Your task to perform on an android device: Open sound settings Image 0: 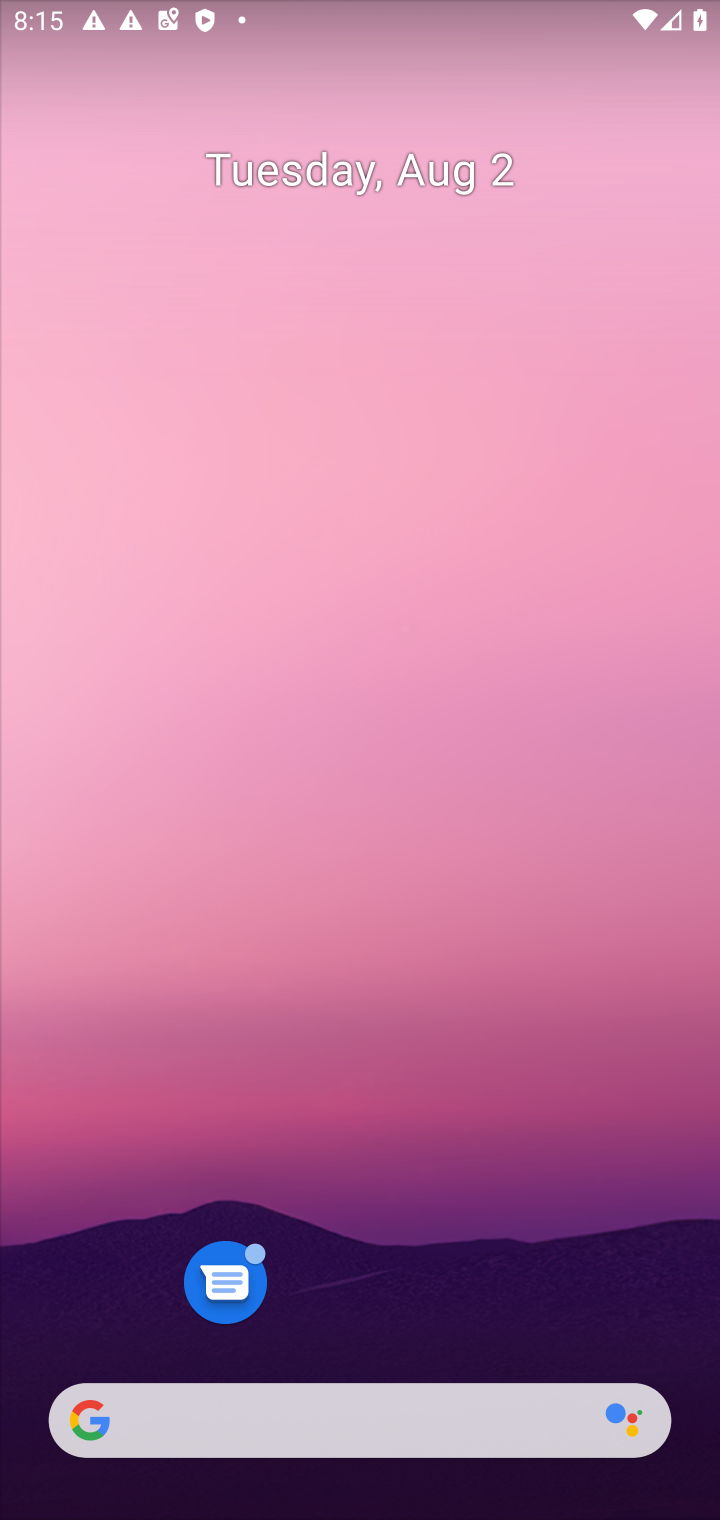
Step 0: drag from (452, 1317) to (693, 878)
Your task to perform on an android device: Open sound settings Image 1: 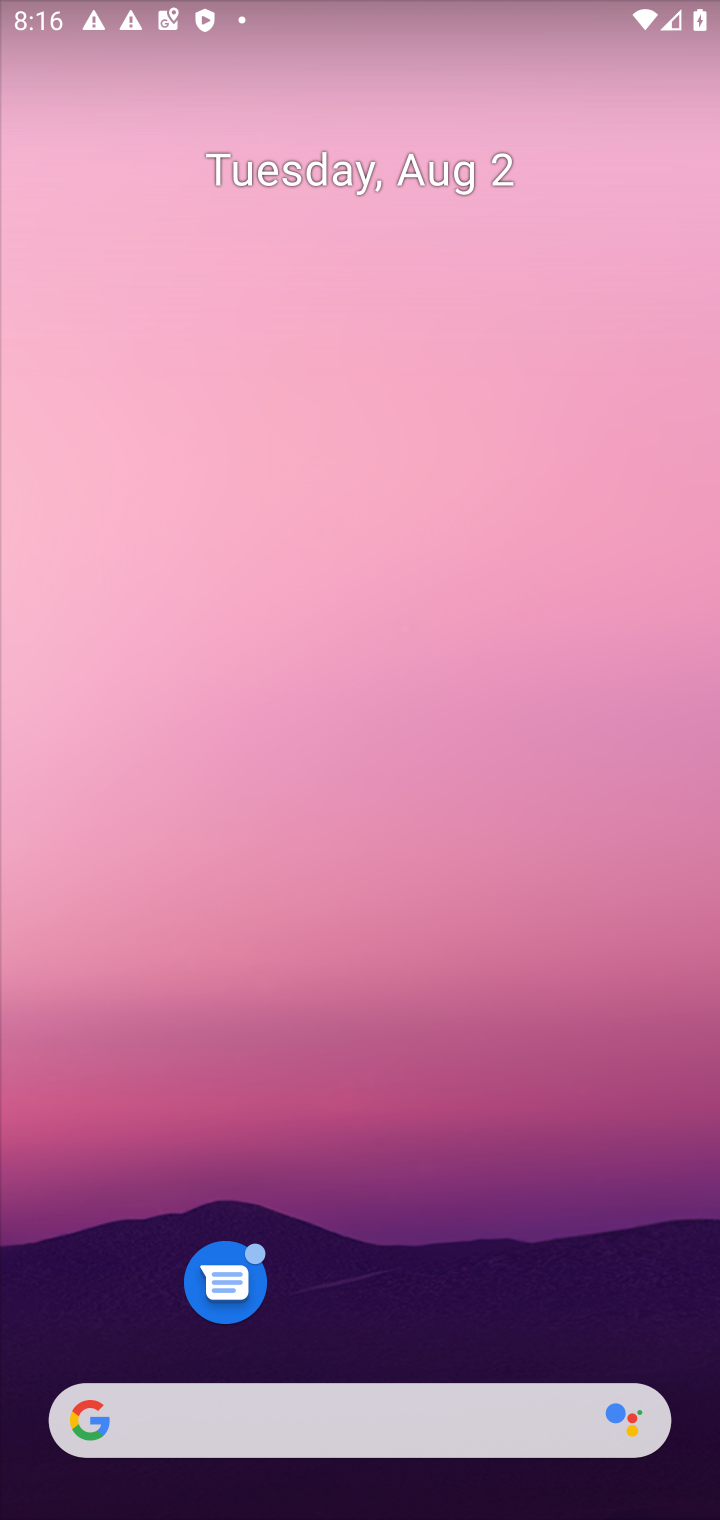
Step 1: drag from (319, 1336) to (313, 52)
Your task to perform on an android device: Open sound settings Image 2: 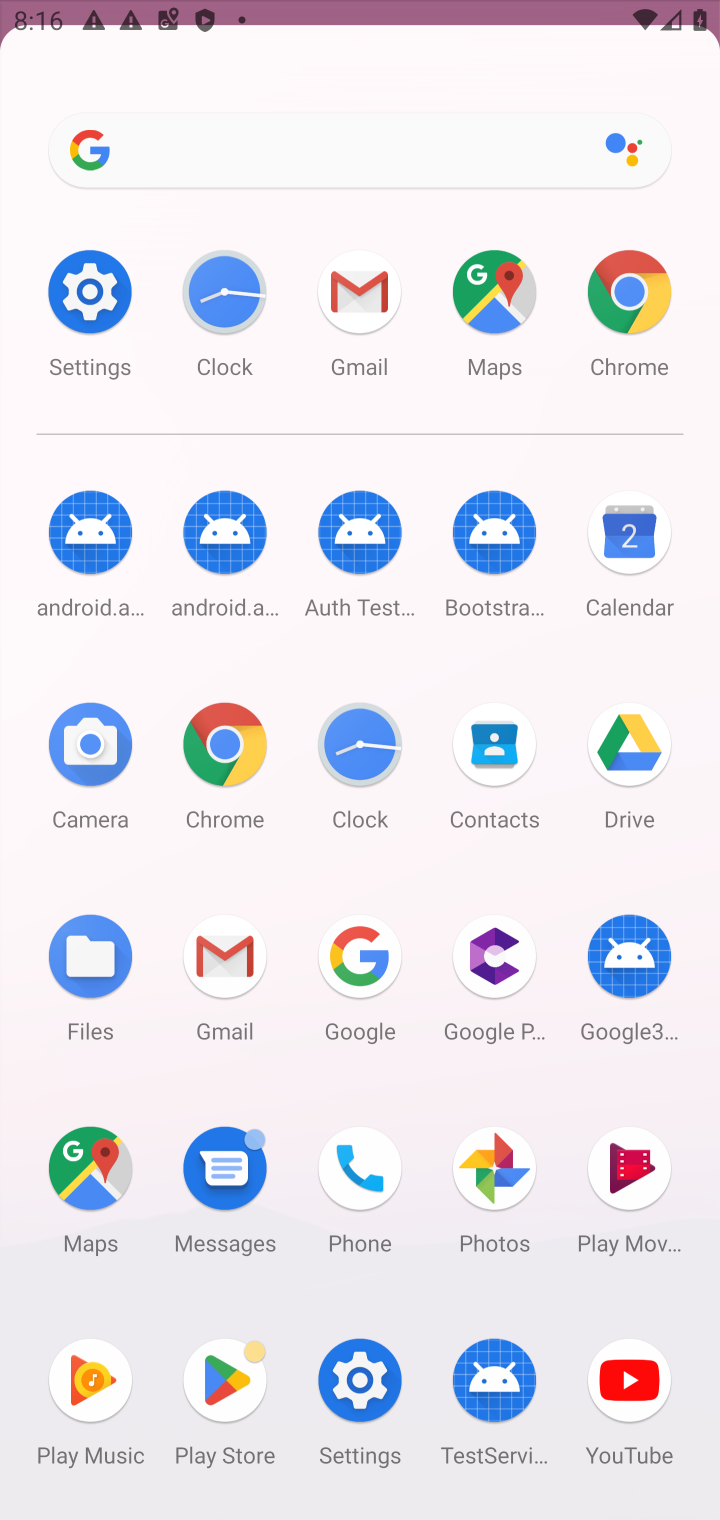
Step 2: click (144, 229)
Your task to perform on an android device: Open sound settings Image 3: 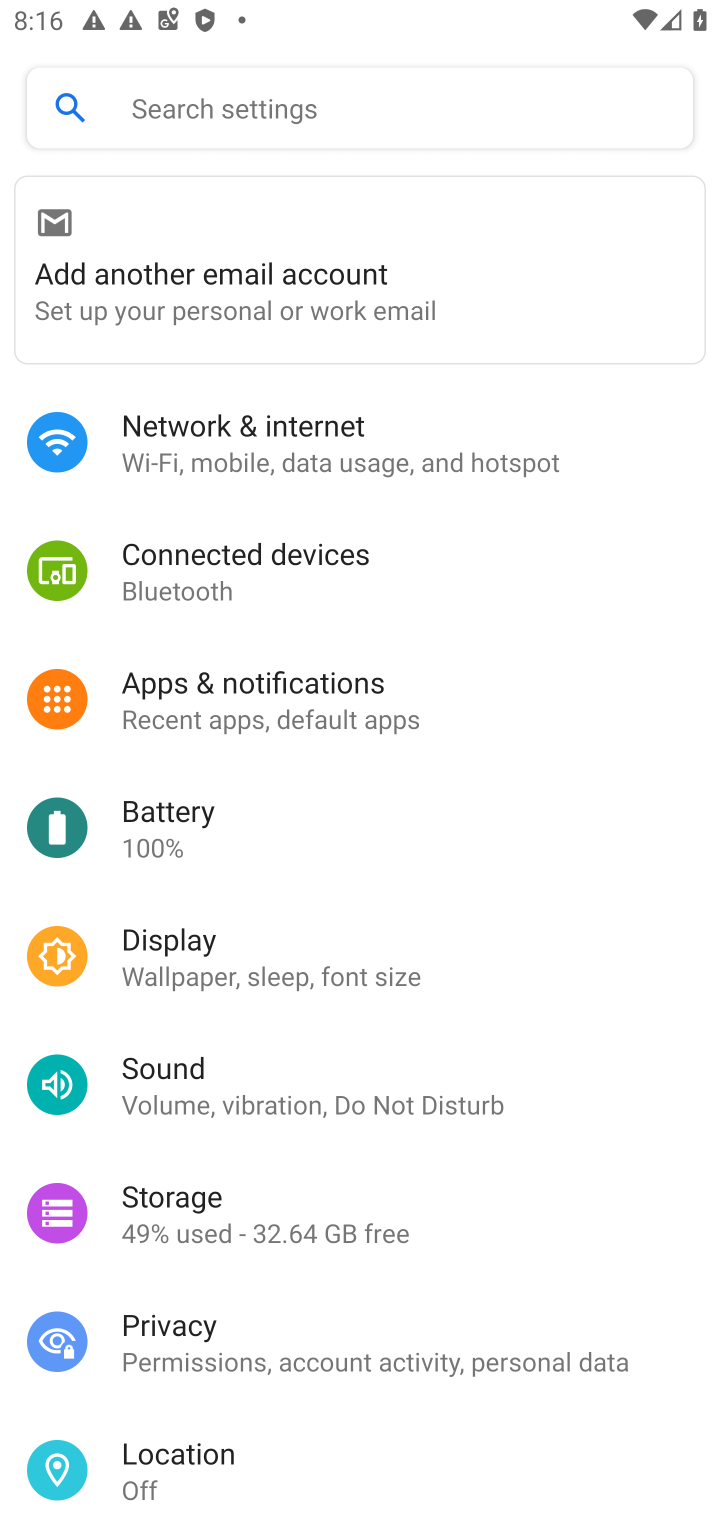
Step 3: click (205, 1070)
Your task to perform on an android device: Open sound settings Image 4: 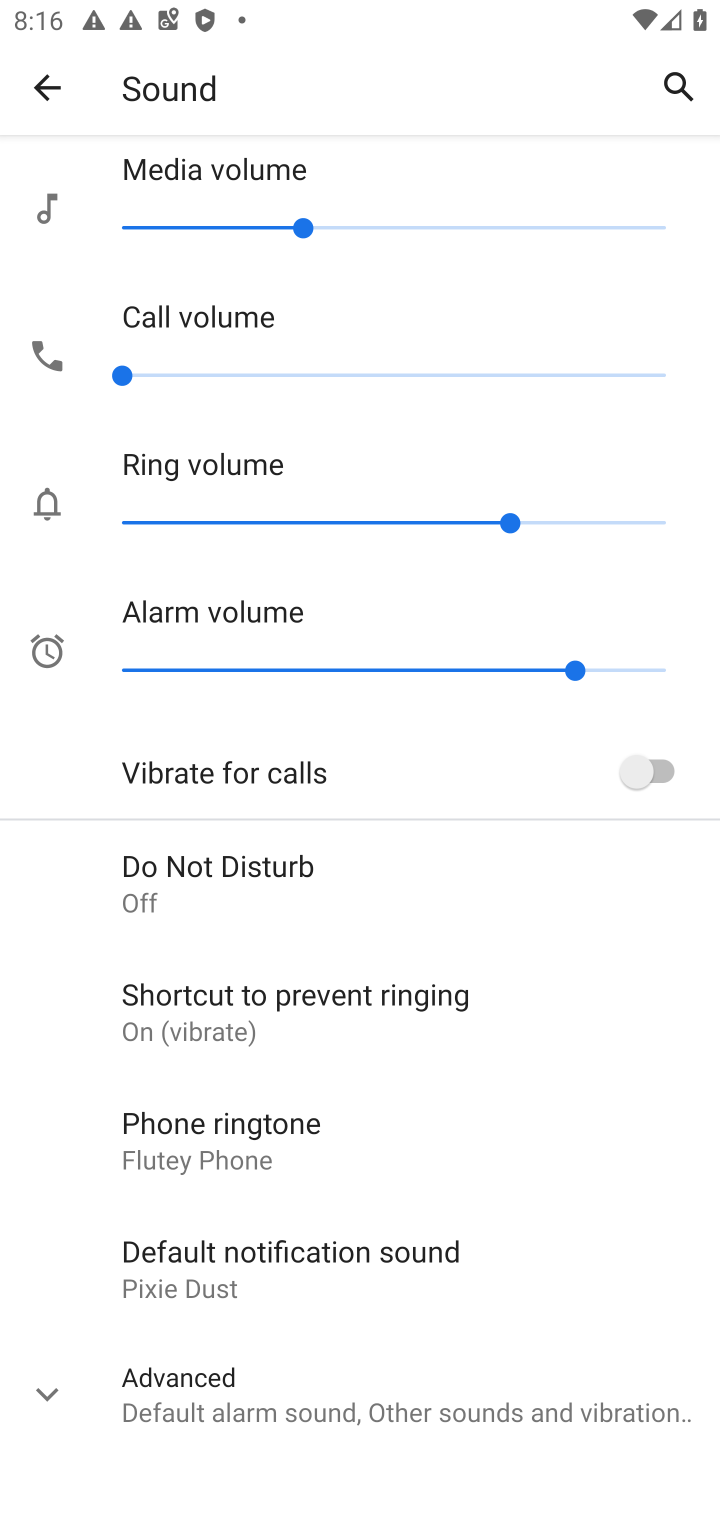
Step 4: task complete